Your task to perform on an android device: empty trash in google photos Image 0: 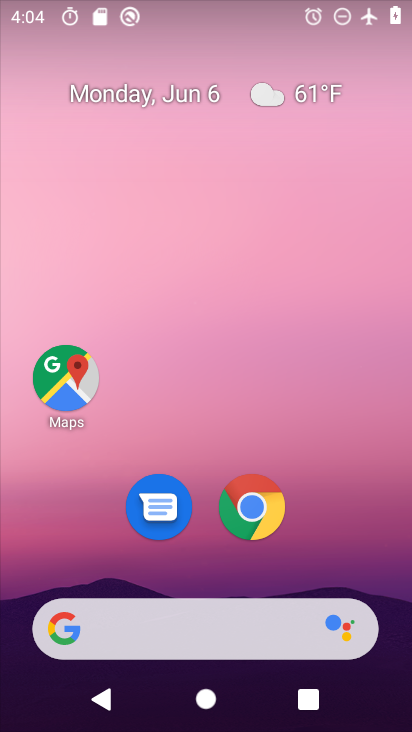
Step 0: drag from (201, 573) to (203, 241)
Your task to perform on an android device: empty trash in google photos Image 1: 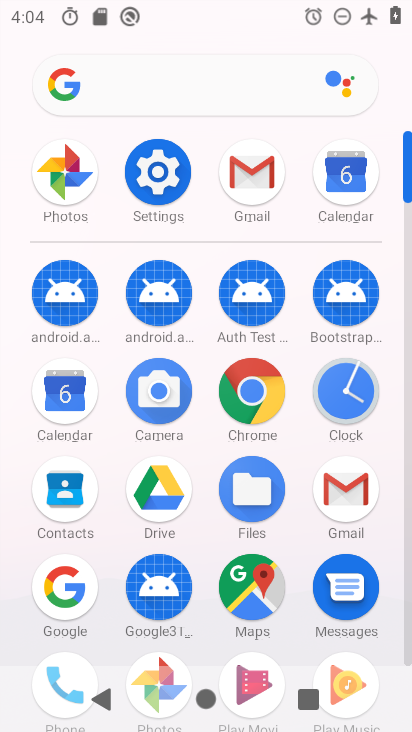
Step 1: click (65, 194)
Your task to perform on an android device: empty trash in google photos Image 2: 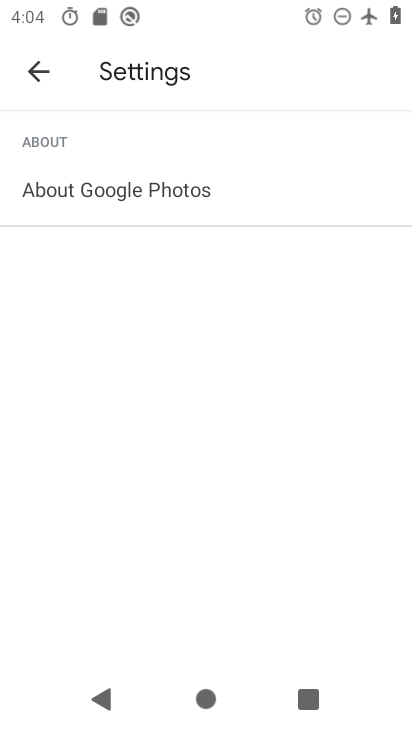
Step 2: click (44, 73)
Your task to perform on an android device: empty trash in google photos Image 3: 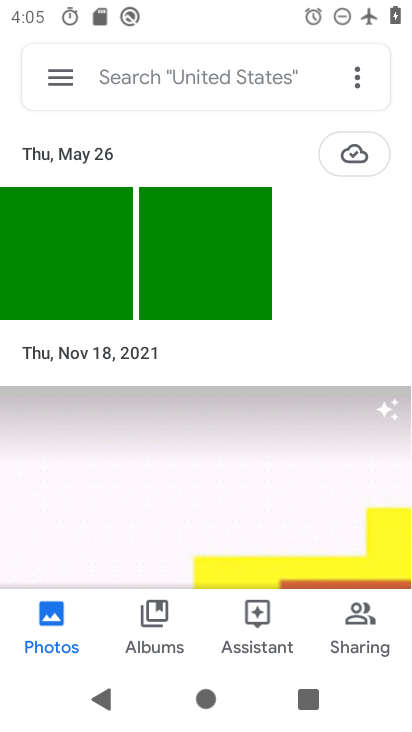
Step 3: click (55, 103)
Your task to perform on an android device: empty trash in google photos Image 4: 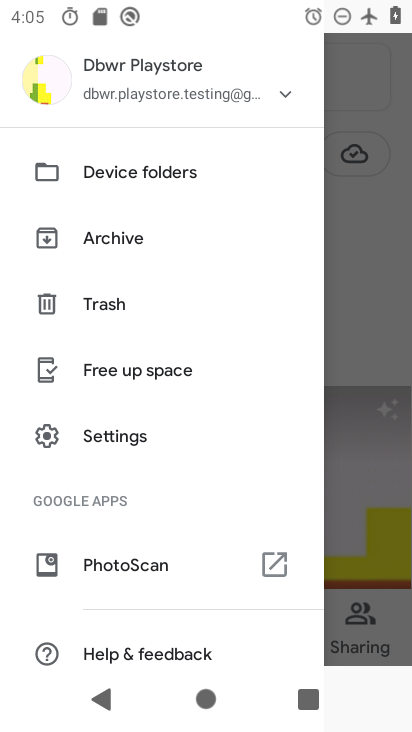
Step 4: click (106, 312)
Your task to perform on an android device: empty trash in google photos Image 5: 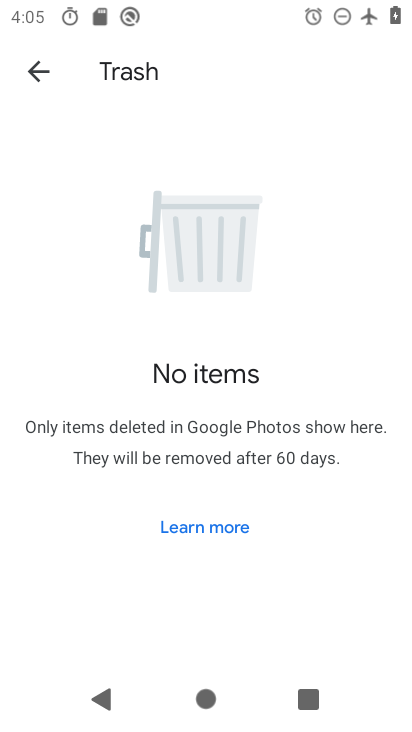
Step 5: task complete